Your task to perform on an android device: Open calendar and show me the second week of next month Image 0: 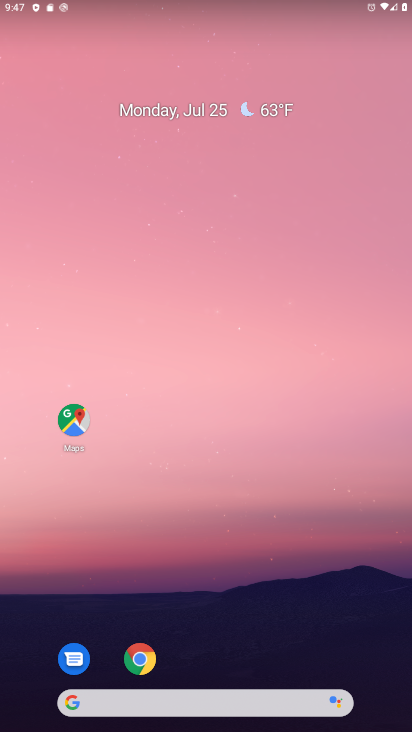
Step 0: drag from (213, 729) to (206, 138)
Your task to perform on an android device: Open calendar and show me the second week of next month Image 1: 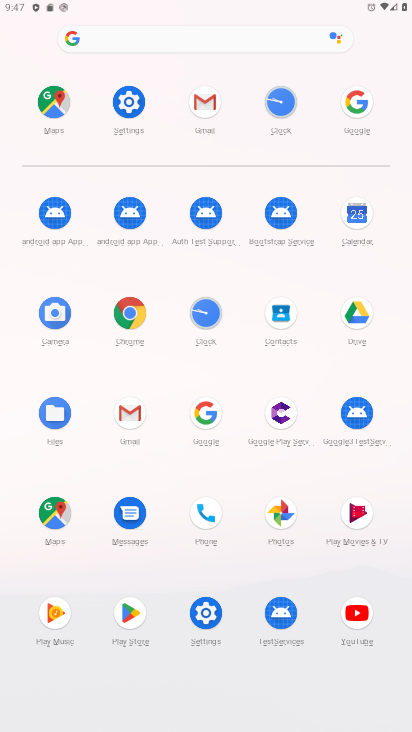
Step 1: click (350, 217)
Your task to perform on an android device: Open calendar and show me the second week of next month Image 2: 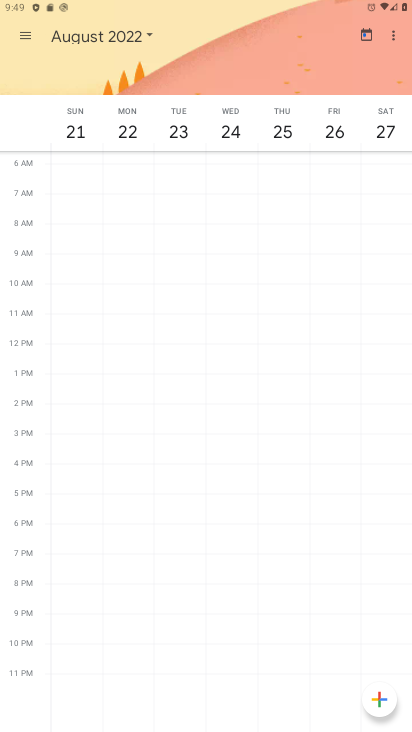
Step 2: click (149, 34)
Your task to perform on an android device: Open calendar and show me the second week of next month Image 3: 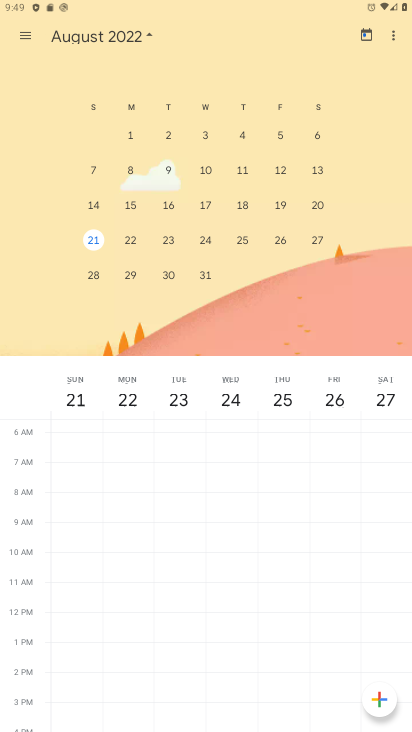
Step 3: click (132, 166)
Your task to perform on an android device: Open calendar and show me the second week of next month Image 4: 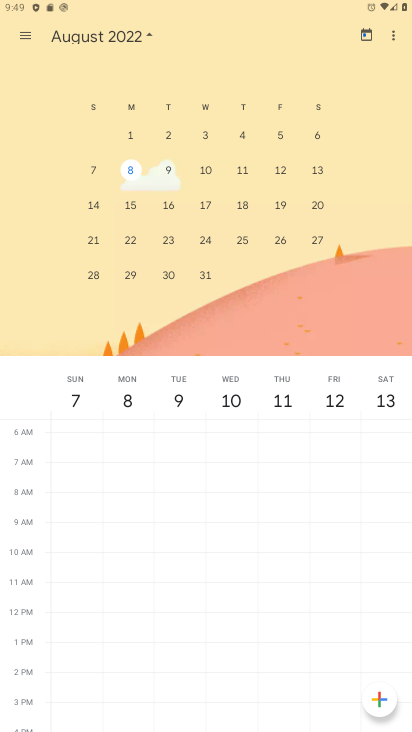
Step 4: click (17, 31)
Your task to perform on an android device: Open calendar and show me the second week of next month Image 5: 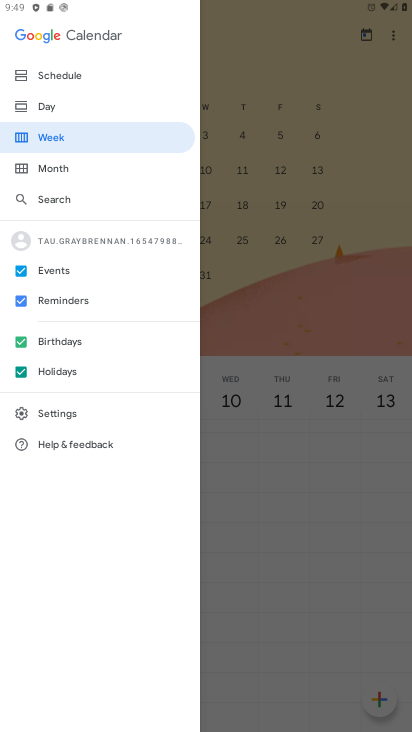
Step 5: click (51, 131)
Your task to perform on an android device: Open calendar and show me the second week of next month Image 6: 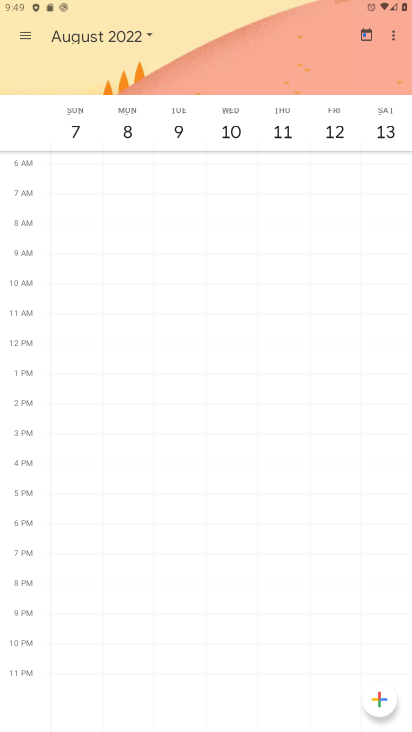
Step 6: task complete